Your task to perform on an android device: Play the last video I watched on Youtube Image 0: 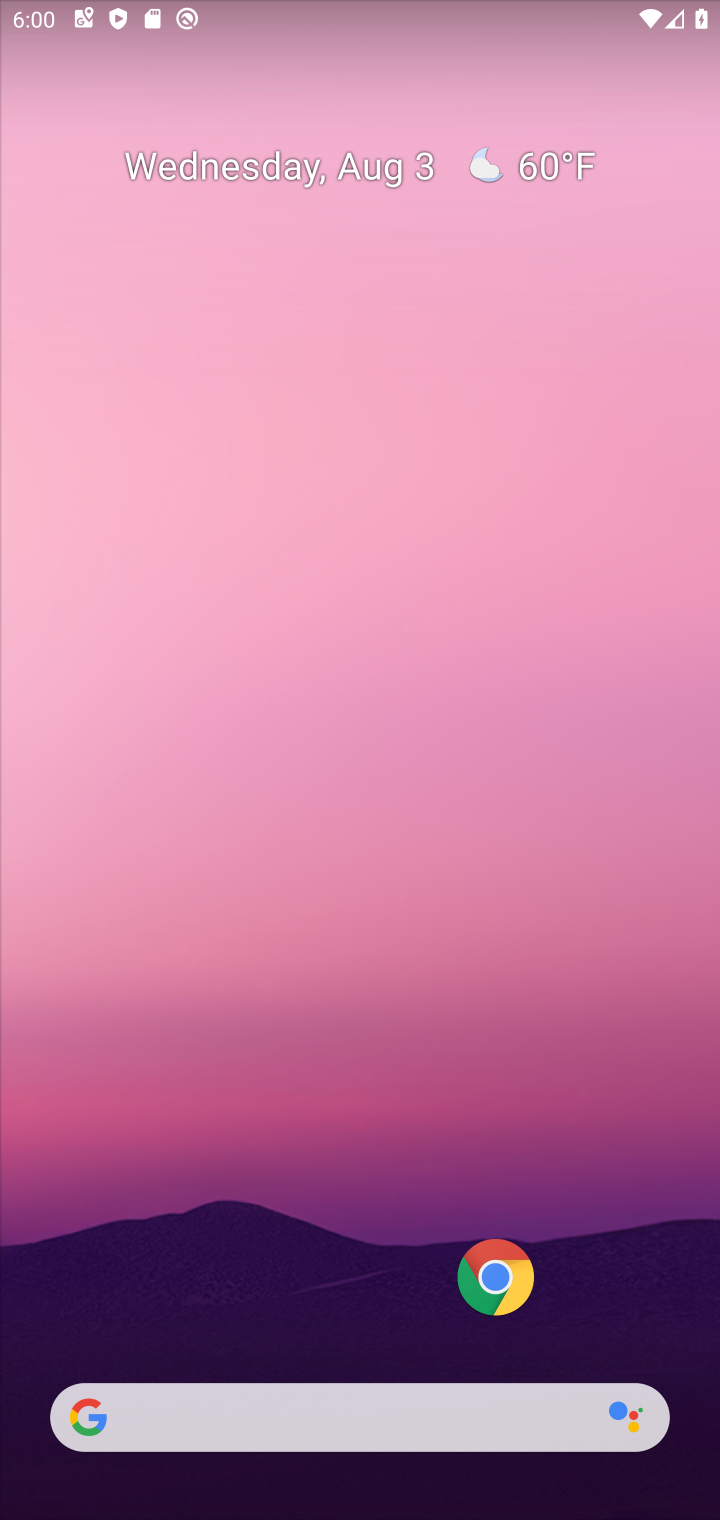
Step 0: drag from (286, 1162) to (434, 76)
Your task to perform on an android device: Play the last video I watched on Youtube Image 1: 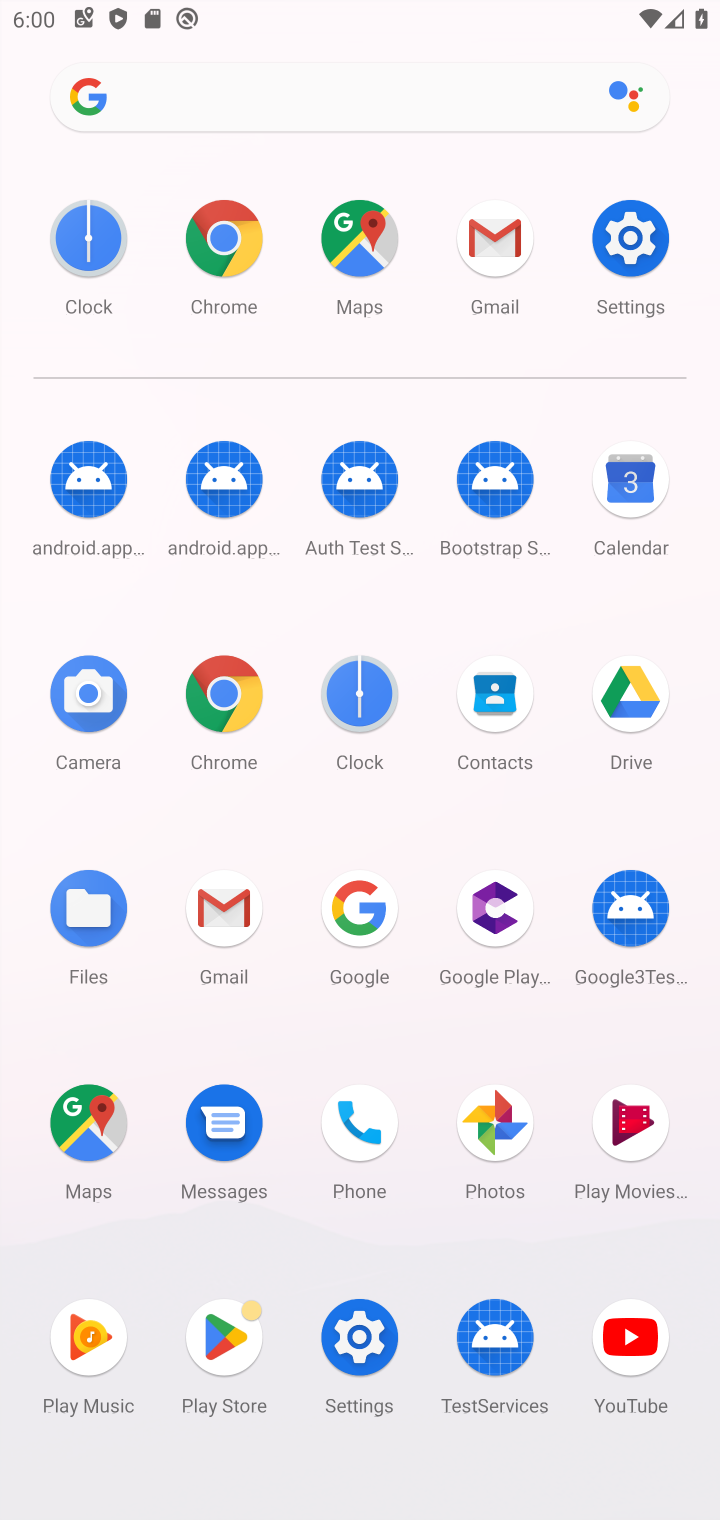
Step 1: drag from (332, 1338) to (590, 260)
Your task to perform on an android device: Play the last video I watched on Youtube Image 2: 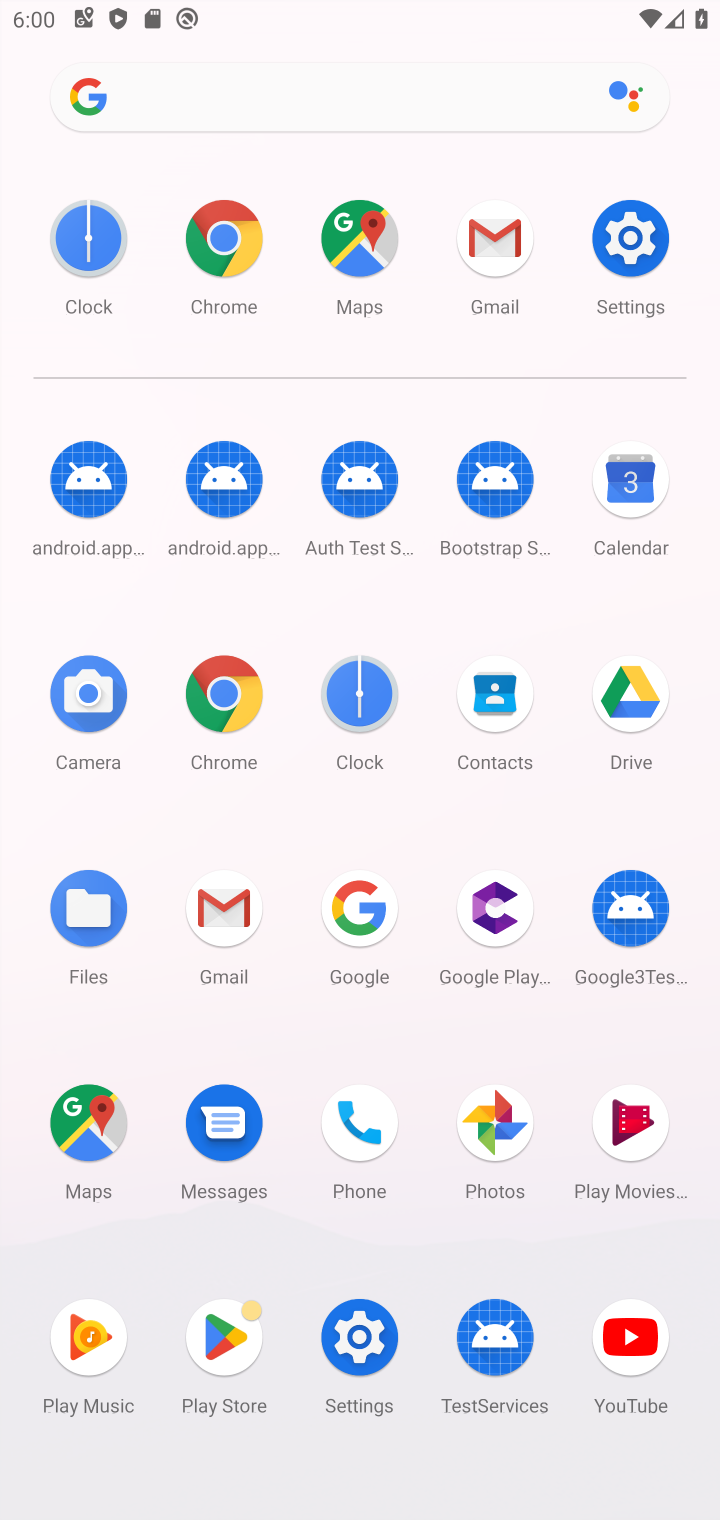
Step 2: click (594, 1354)
Your task to perform on an android device: Play the last video I watched on Youtube Image 3: 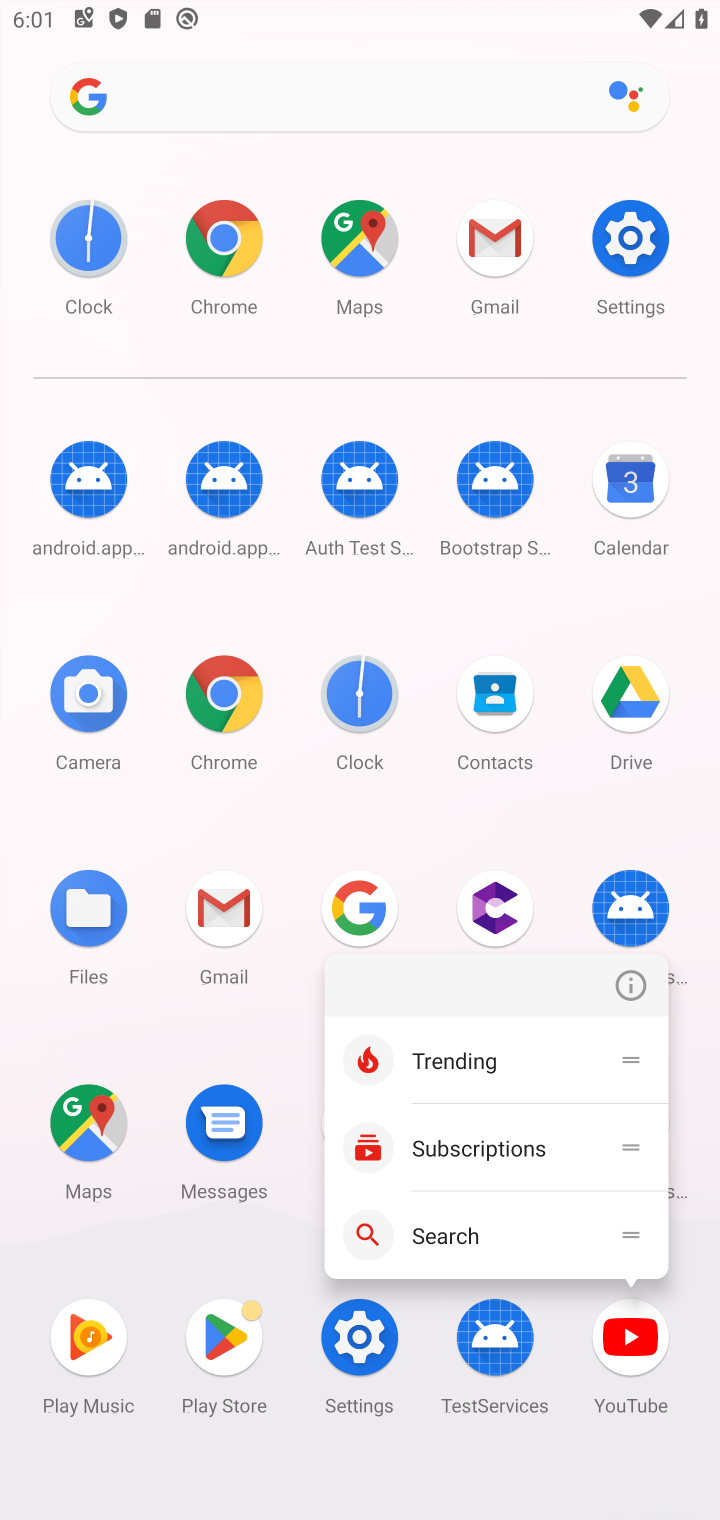
Step 3: click (616, 1348)
Your task to perform on an android device: Play the last video I watched on Youtube Image 4: 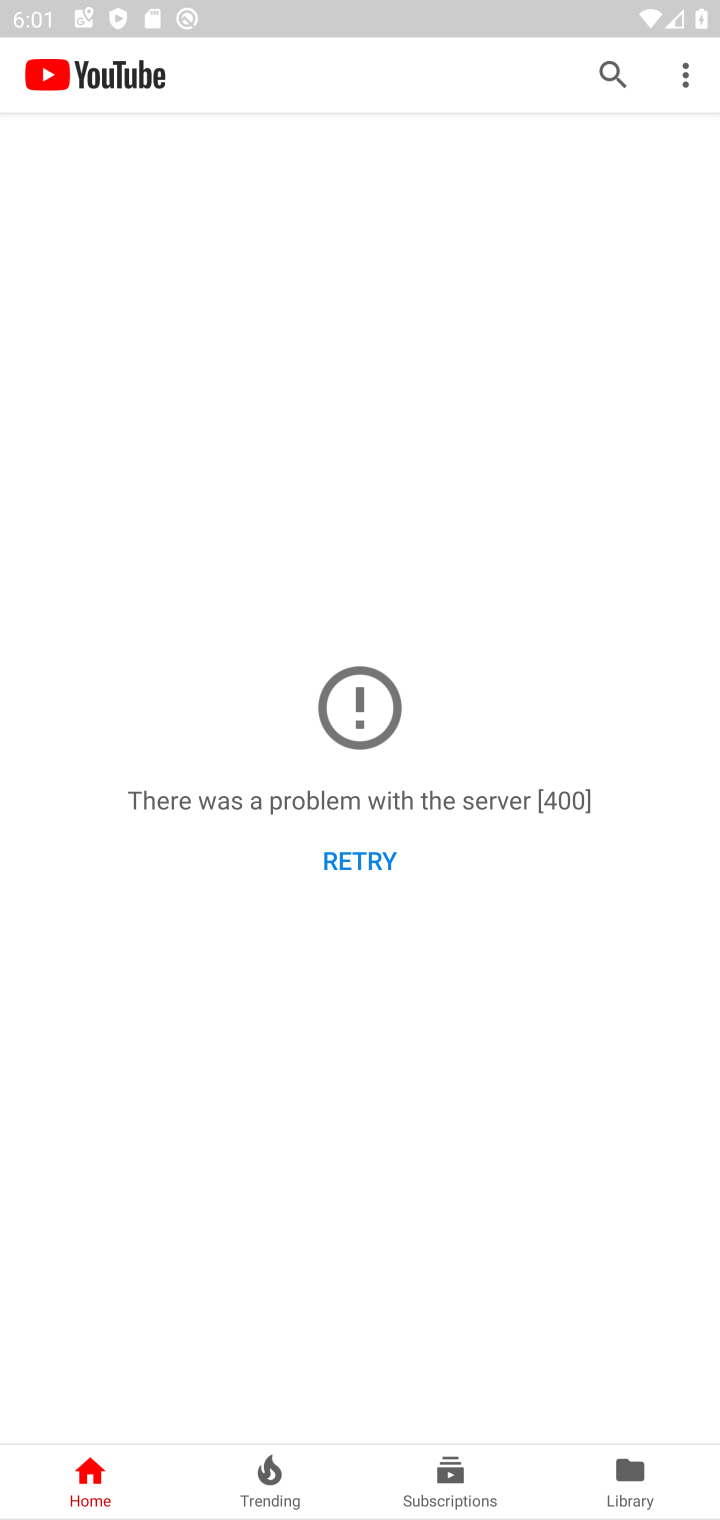
Step 4: click (616, 1480)
Your task to perform on an android device: Play the last video I watched on Youtube Image 5: 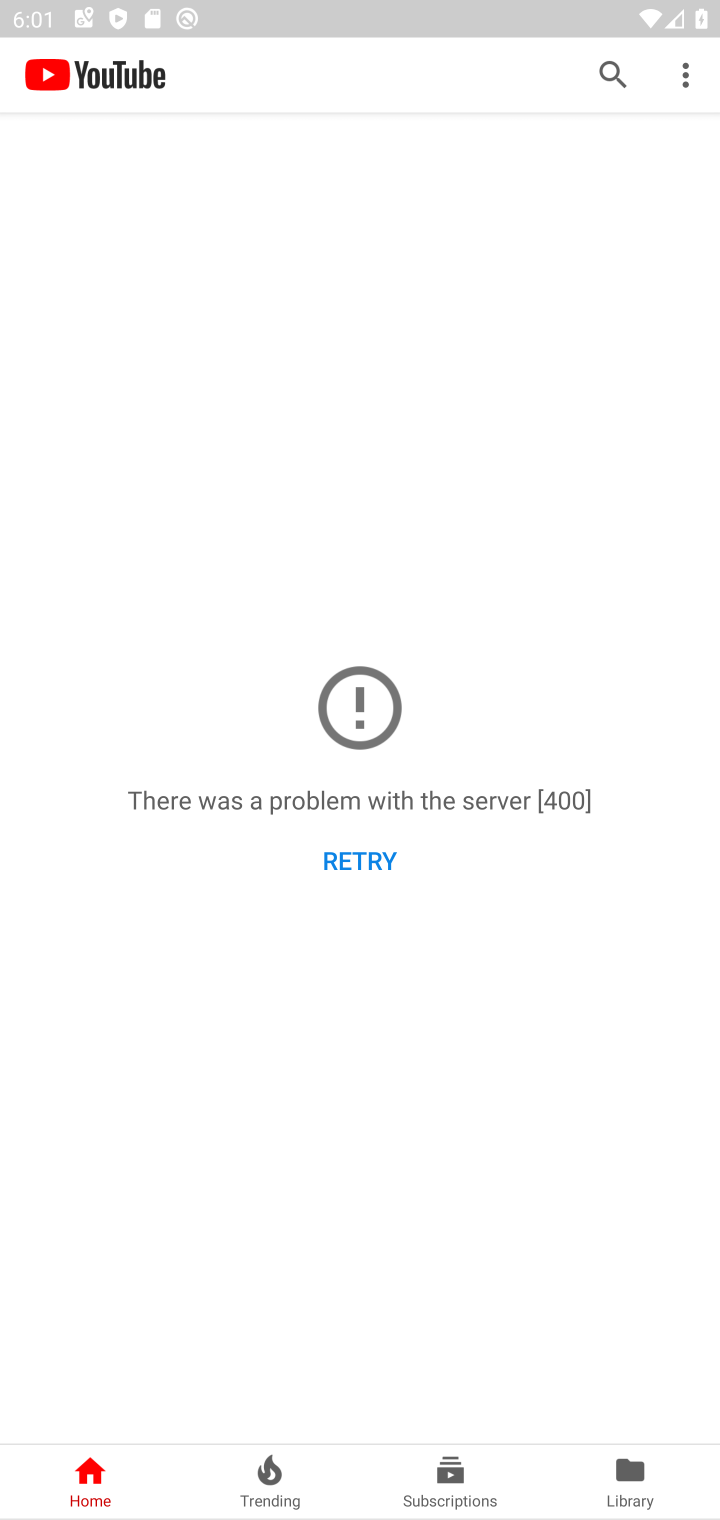
Step 5: task complete